Your task to perform on an android device: Search for vegetarian restaurants on Maps Image 0: 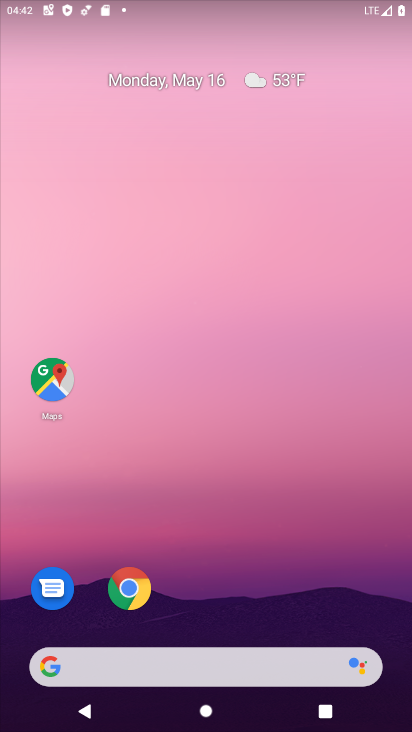
Step 0: drag from (276, 450) to (269, 0)
Your task to perform on an android device: Search for vegetarian restaurants on Maps Image 1: 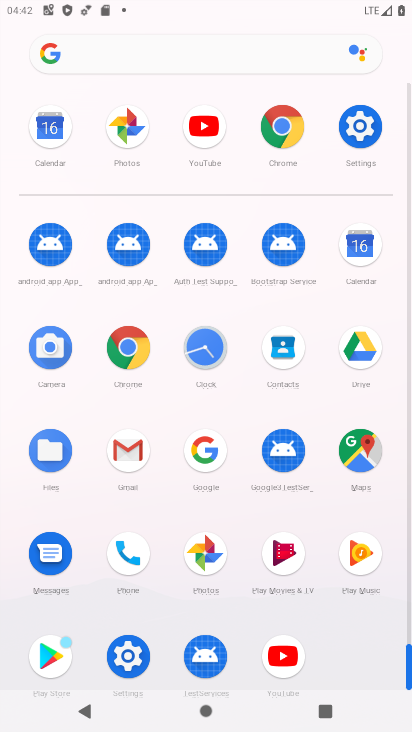
Step 1: drag from (14, 532) to (29, 218)
Your task to perform on an android device: Search for vegetarian restaurants on Maps Image 2: 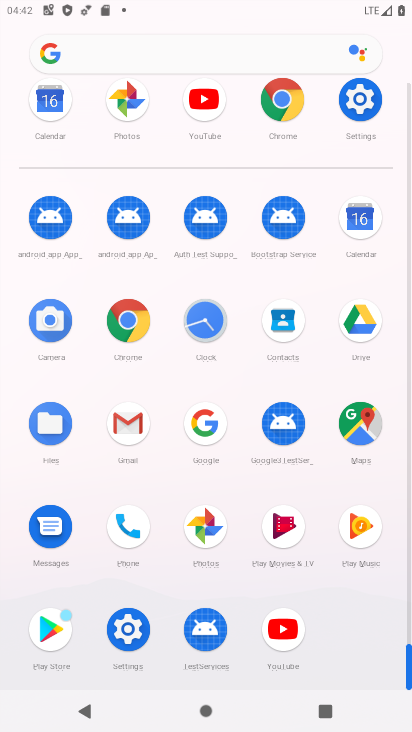
Step 2: click (365, 418)
Your task to perform on an android device: Search for vegetarian restaurants on Maps Image 3: 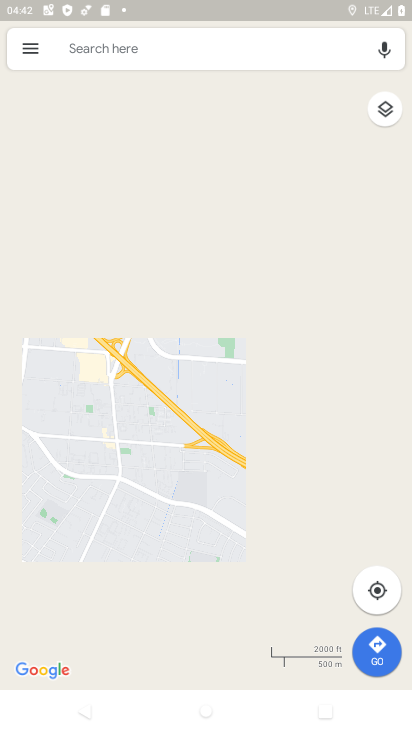
Step 3: click (175, 38)
Your task to perform on an android device: Search for vegetarian restaurants on Maps Image 4: 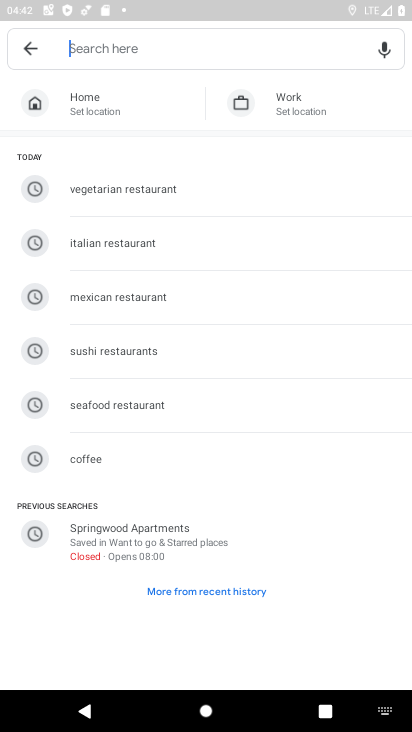
Step 4: click (147, 199)
Your task to perform on an android device: Search for vegetarian restaurants on Maps Image 5: 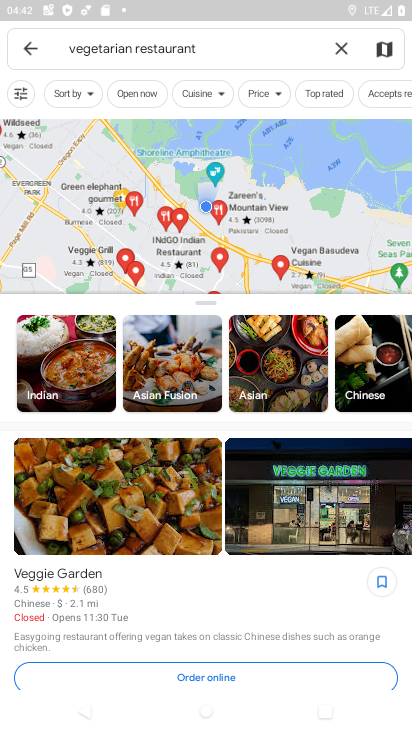
Step 5: task complete